Your task to perform on an android device: turn off notifications settings in the gmail app Image 0: 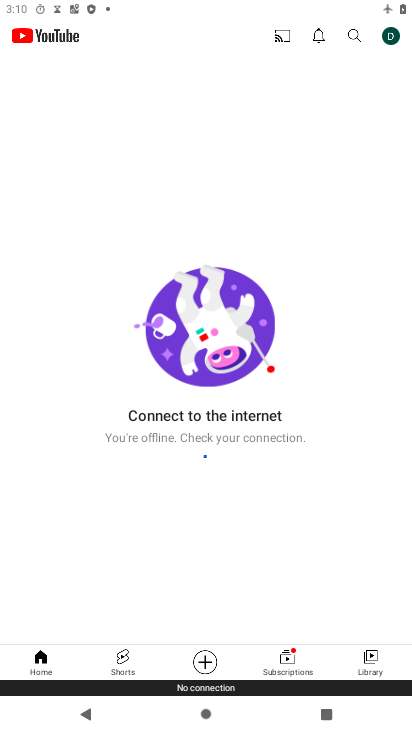
Step 0: press home button
Your task to perform on an android device: turn off notifications settings in the gmail app Image 1: 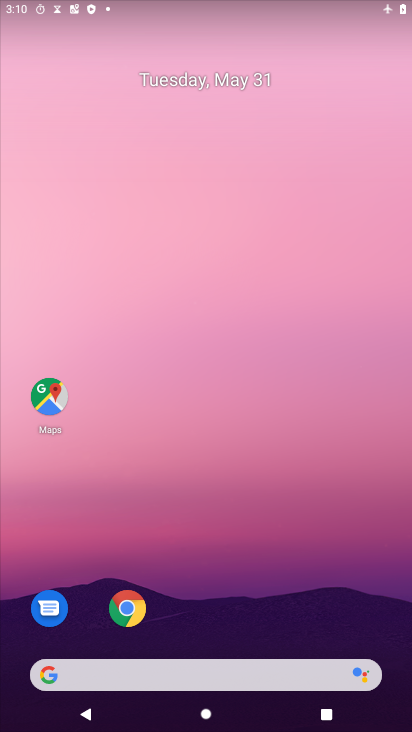
Step 1: drag from (203, 632) to (285, 73)
Your task to perform on an android device: turn off notifications settings in the gmail app Image 2: 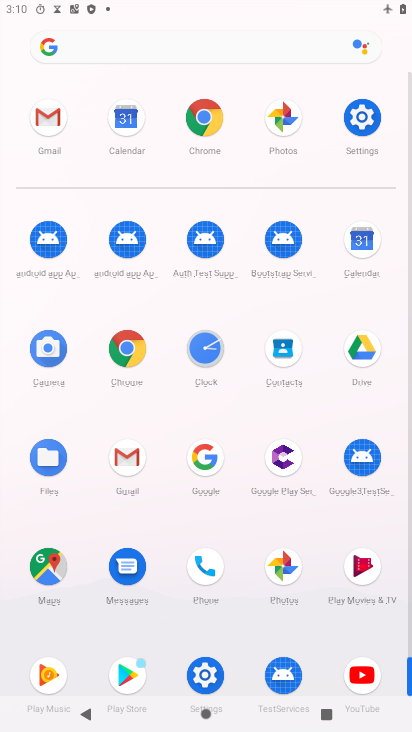
Step 2: click (129, 464)
Your task to perform on an android device: turn off notifications settings in the gmail app Image 3: 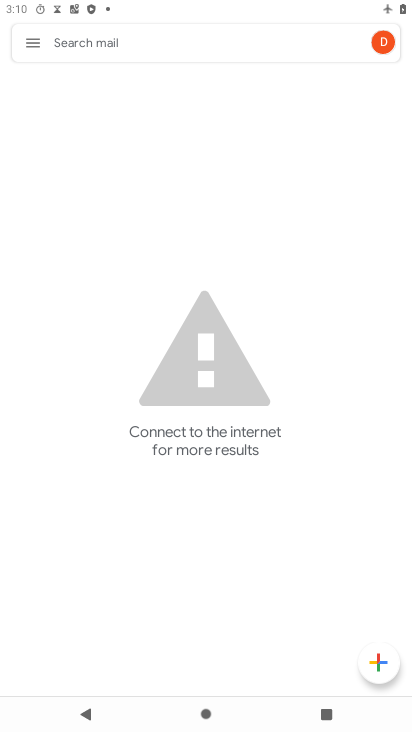
Step 3: click (20, 33)
Your task to perform on an android device: turn off notifications settings in the gmail app Image 4: 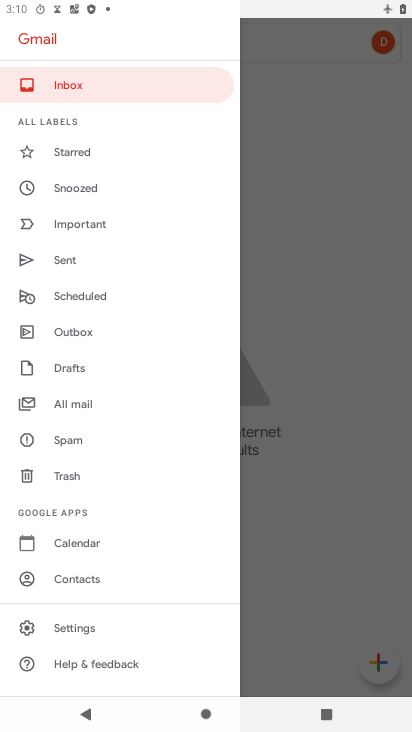
Step 4: click (93, 630)
Your task to perform on an android device: turn off notifications settings in the gmail app Image 5: 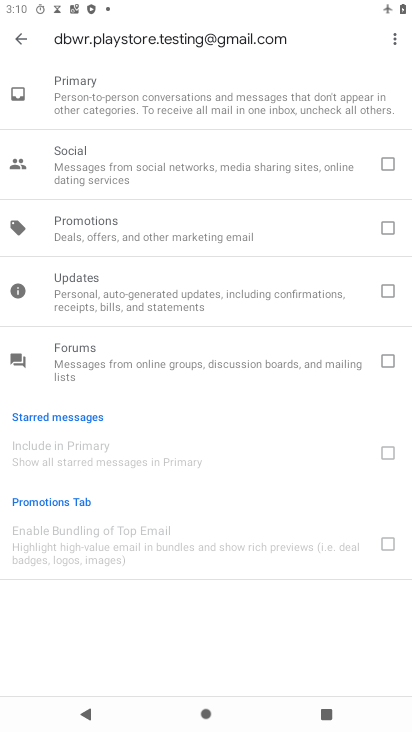
Step 5: click (30, 37)
Your task to perform on an android device: turn off notifications settings in the gmail app Image 6: 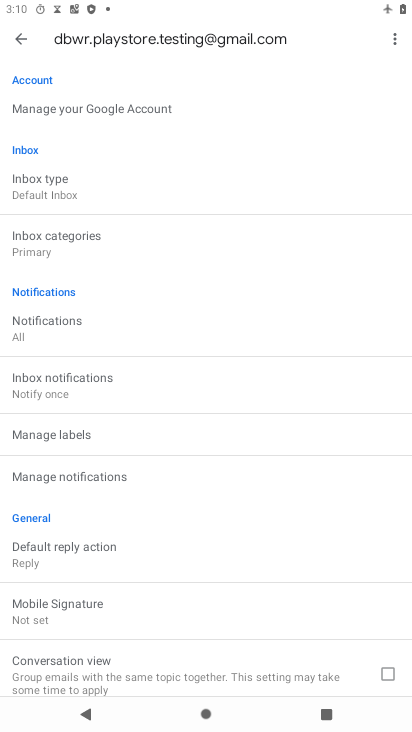
Step 6: click (17, 29)
Your task to perform on an android device: turn off notifications settings in the gmail app Image 7: 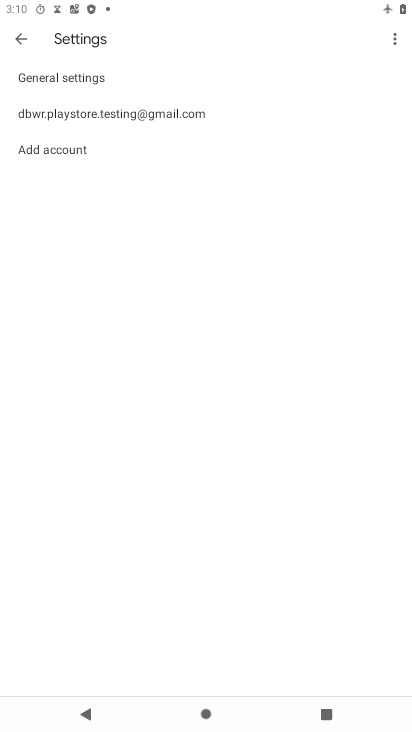
Step 7: click (95, 83)
Your task to perform on an android device: turn off notifications settings in the gmail app Image 8: 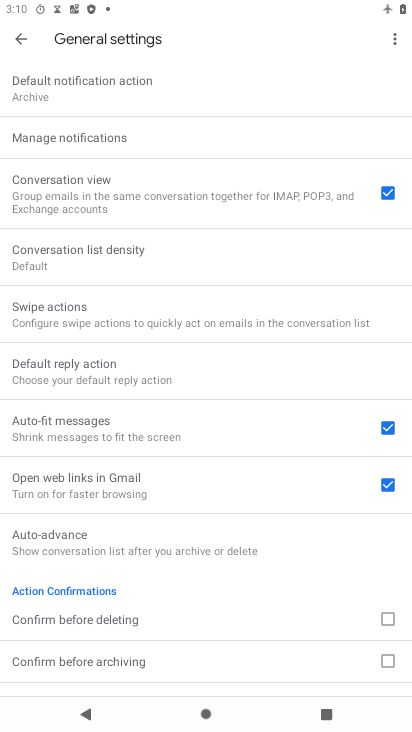
Step 8: click (101, 136)
Your task to perform on an android device: turn off notifications settings in the gmail app Image 9: 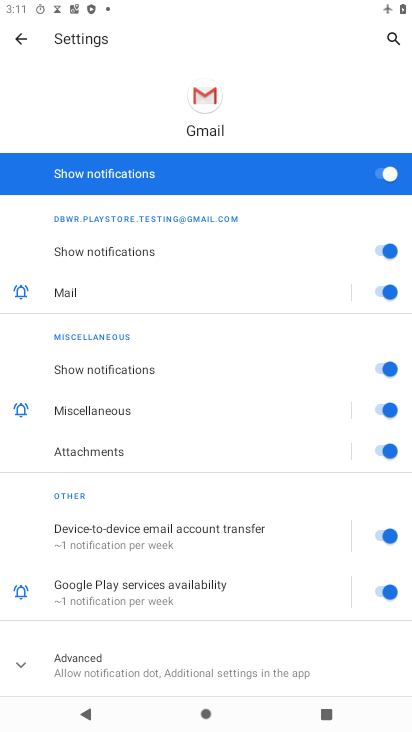
Step 9: click (368, 174)
Your task to perform on an android device: turn off notifications settings in the gmail app Image 10: 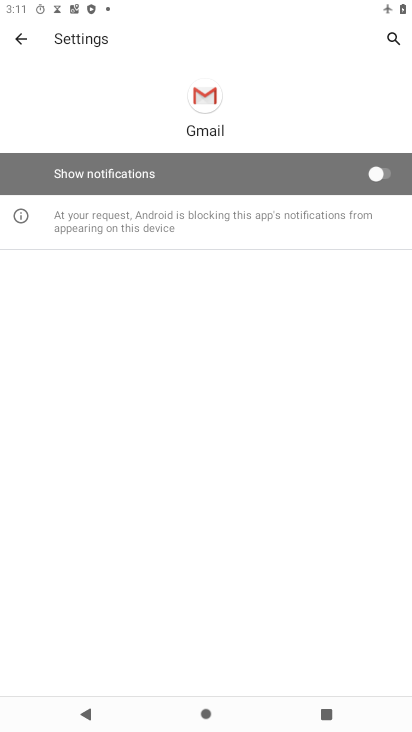
Step 10: task complete